Your task to perform on an android device: see creations saved in the google photos Image 0: 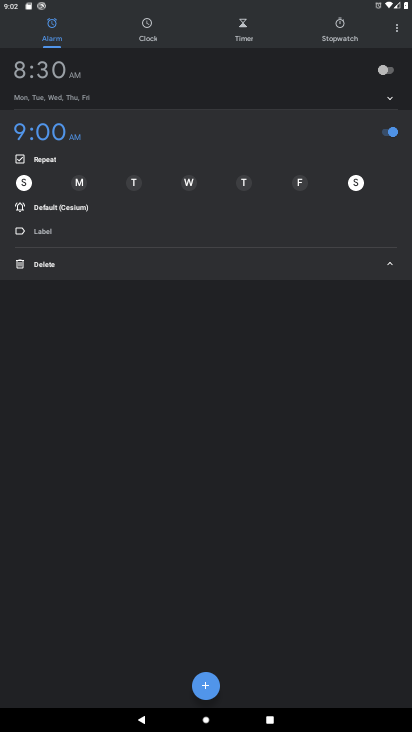
Step 0: press home button
Your task to perform on an android device: see creations saved in the google photos Image 1: 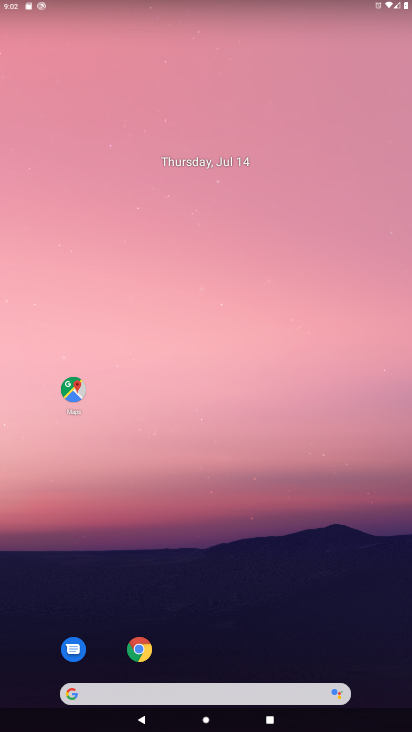
Step 1: drag from (197, 634) to (258, 4)
Your task to perform on an android device: see creations saved in the google photos Image 2: 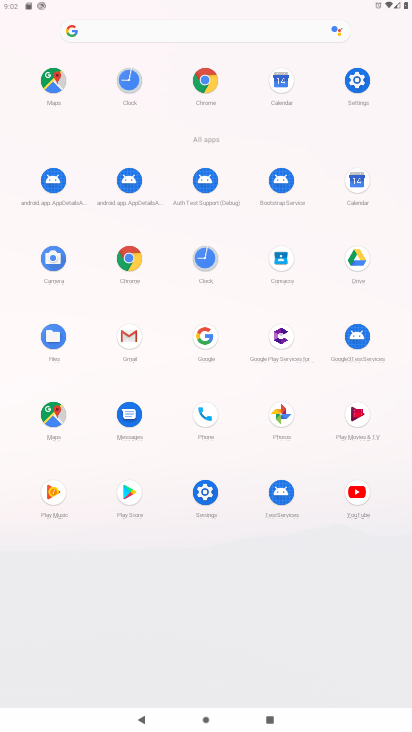
Step 2: click (281, 432)
Your task to perform on an android device: see creations saved in the google photos Image 3: 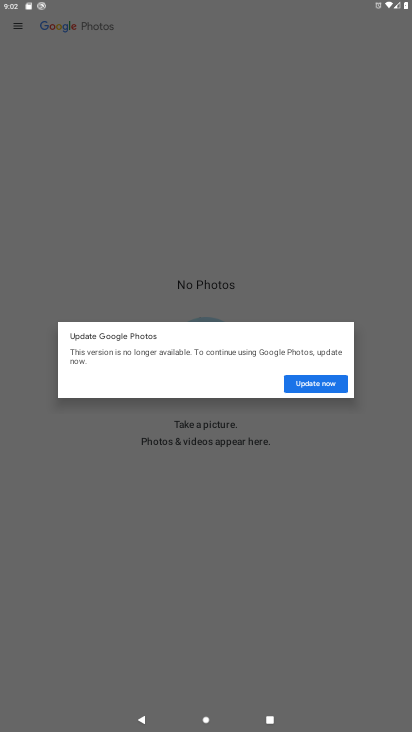
Step 3: click (314, 389)
Your task to perform on an android device: see creations saved in the google photos Image 4: 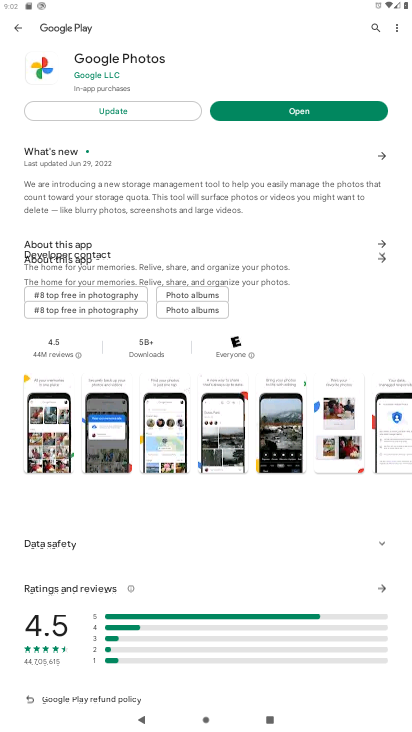
Step 4: click (286, 107)
Your task to perform on an android device: see creations saved in the google photos Image 5: 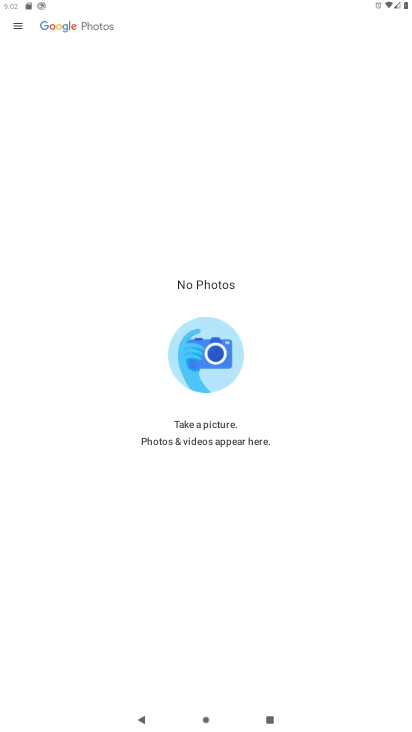
Step 5: click (122, 27)
Your task to perform on an android device: see creations saved in the google photos Image 6: 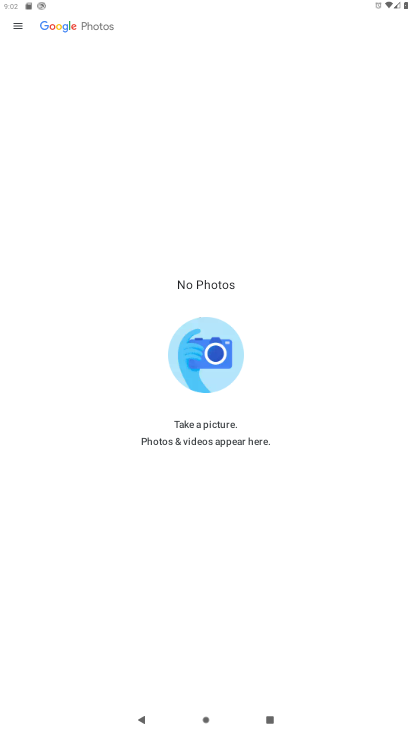
Step 6: task complete